Your task to perform on an android device: Set the phone to "Do not disturb". Image 0: 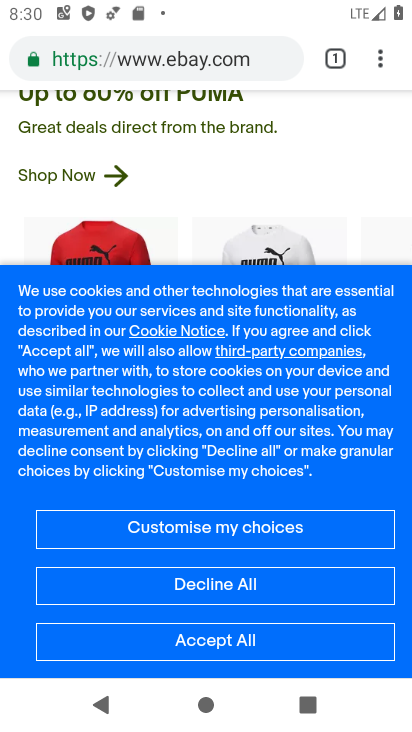
Step 0: press home button
Your task to perform on an android device: Set the phone to "Do not disturb". Image 1: 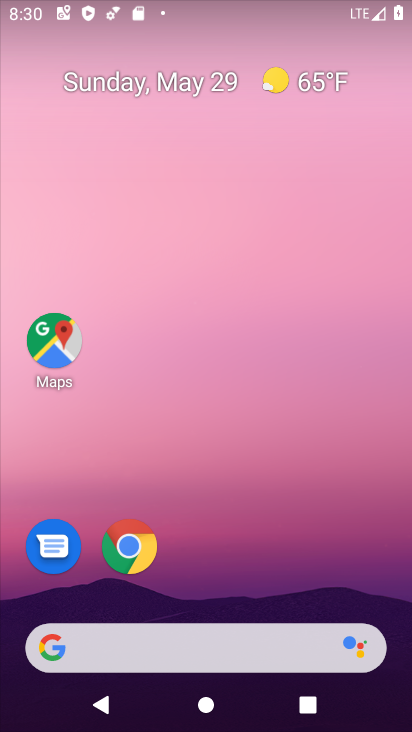
Step 1: drag from (175, 627) to (174, 166)
Your task to perform on an android device: Set the phone to "Do not disturb". Image 2: 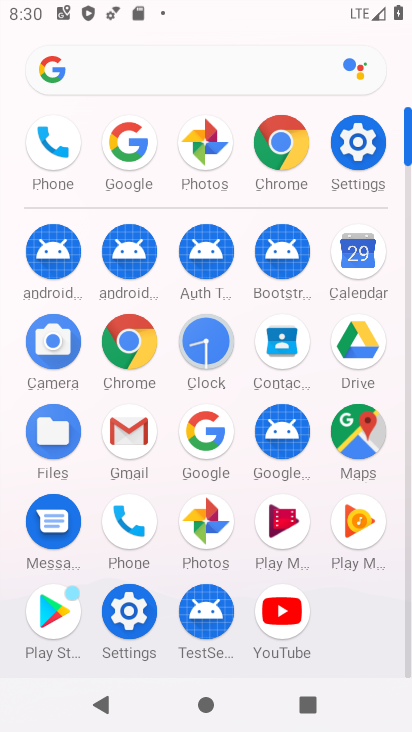
Step 2: click (361, 145)
Your task to perform on an android device: Set the phone to "Do not disturb". Image 3: 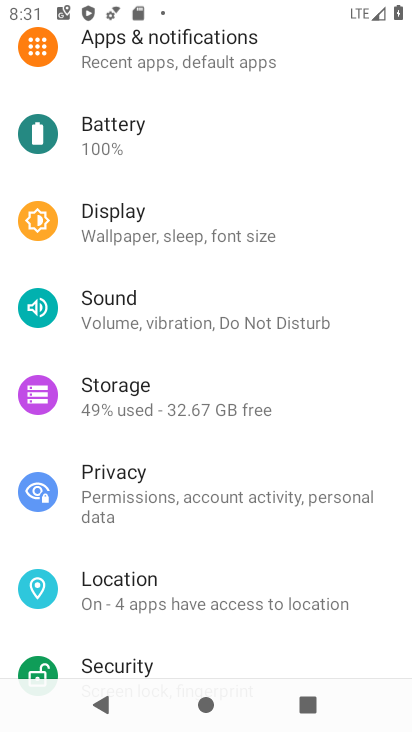
Step 3: click (229, 308)
Your task to perform on an android device: Set the phone to "Do not disturb". Image 4: 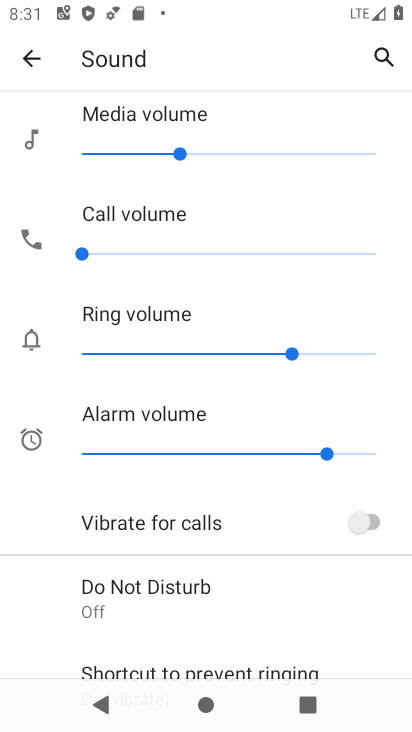
Step 4: drag from (201, 658) to (187, 330)
Your task to perform on an android device: Set the phone to "Do not disturb". Image 5: 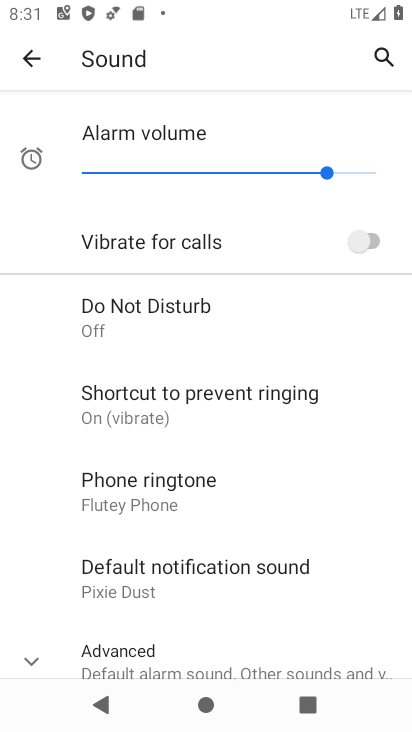
Step 5: click (167, 311)
Your task to perform on an android device: Set the phone to "Do not disturb". Image 6: 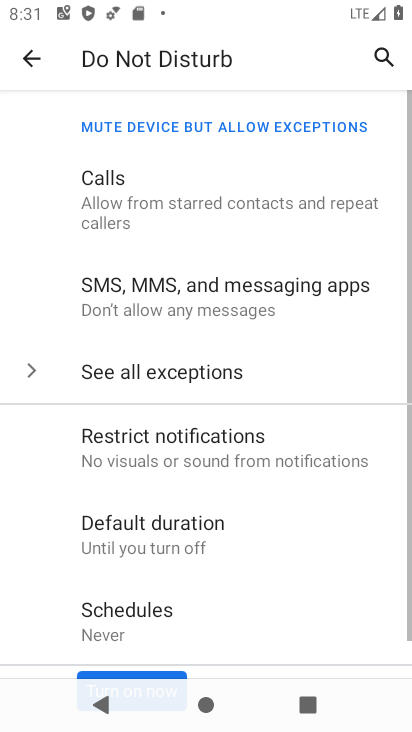
Step 6: drag from (209, 613) to (218, 267)
Your task to perform on an android device: Set the phone to "Do not disturb". Image 7: 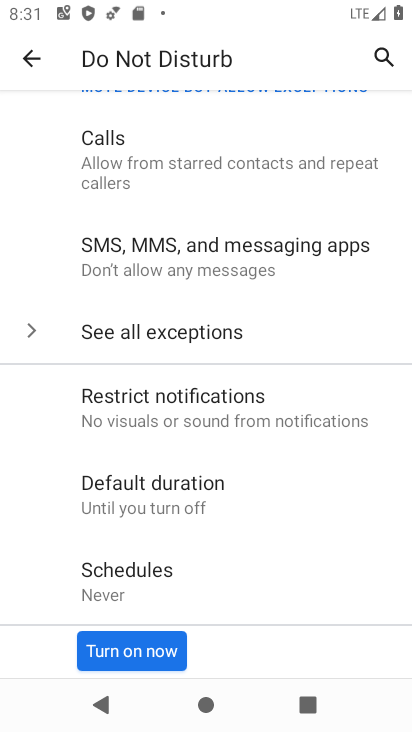
Step 7: click (126, 649)
Your task to perform on an android device: Set the phone to "Do not disturb". Image 8: 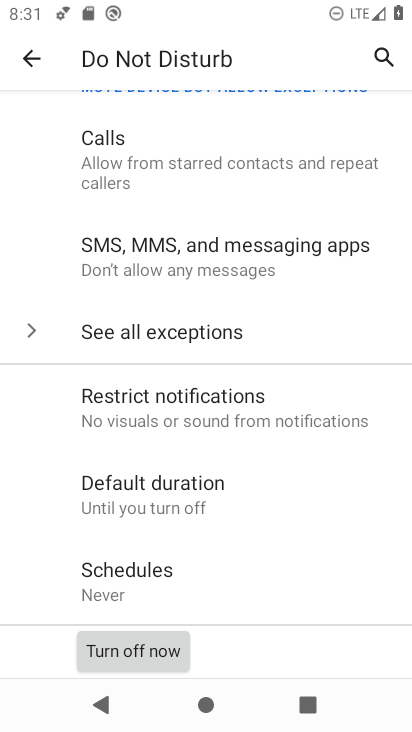
Step 8: task complete